Your task to perform on an android device: Open Chrome and go to settings Image 0: 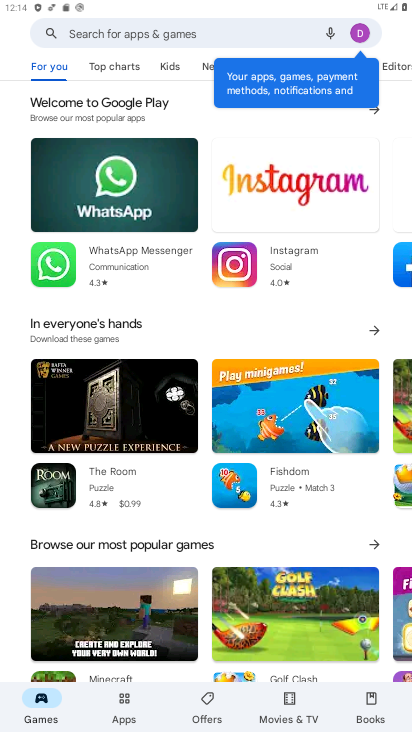
Step 0: press home button
Your task to perform on an android device: Open Chrome and go to settings Image 1: 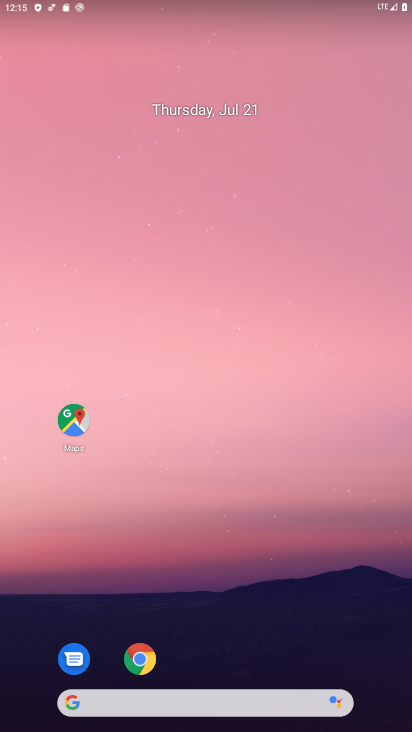
Step 1: click (134, 662)
Your task to perform on an android device: Open Chrome and go to settings Image 2: 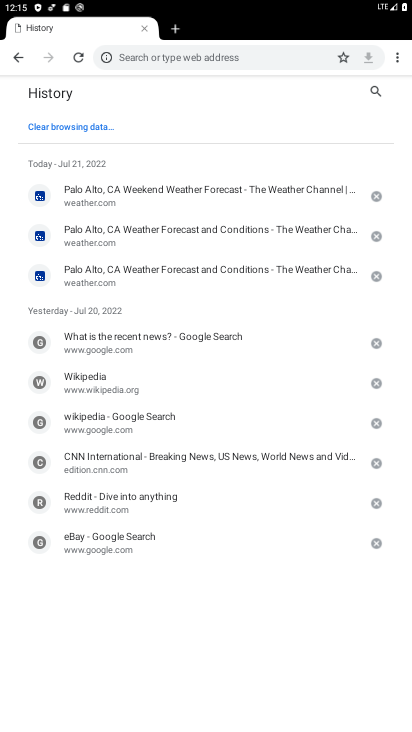
Step 2: click (392, 54)
Your task to perform on an android device: Open Chrome and go to settings Image 3: 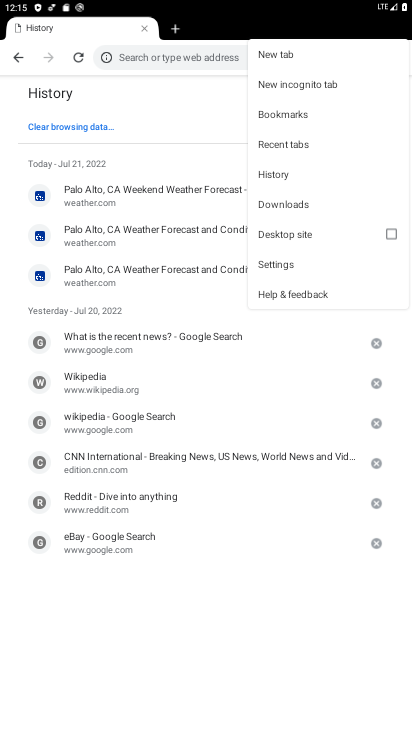
Step 3: click (265, 272)
Your task to perform on an android device: Open Chrome and go to settings Image 4: 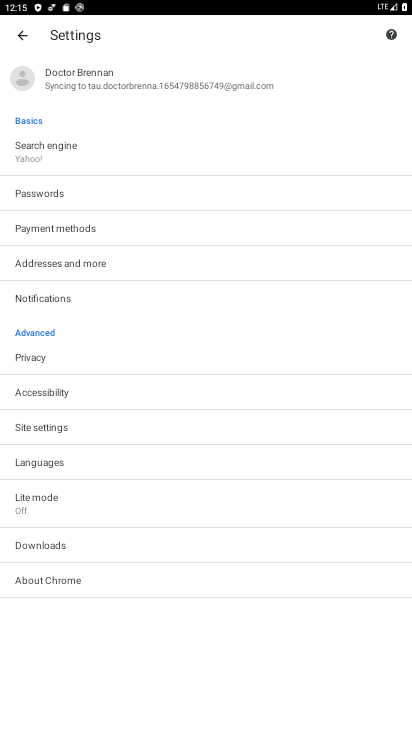
Step 4: task complete